Your task to perform on an android device: change text size in settings app Image 0: 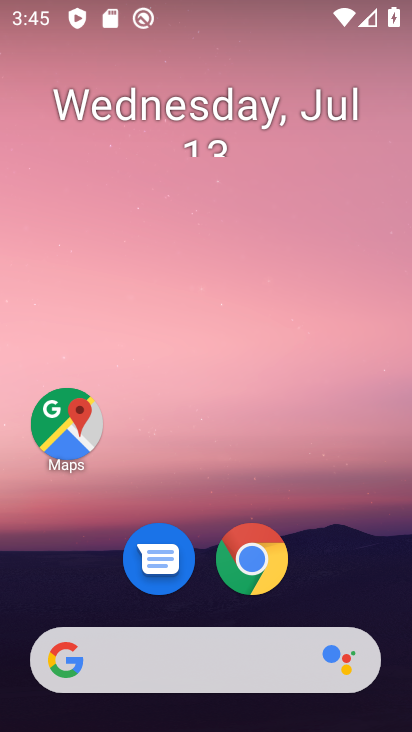
Step 0: drag from (243, 562) to (248, 328)
Your task to perform on an android device: change text size in settings app Image 1: 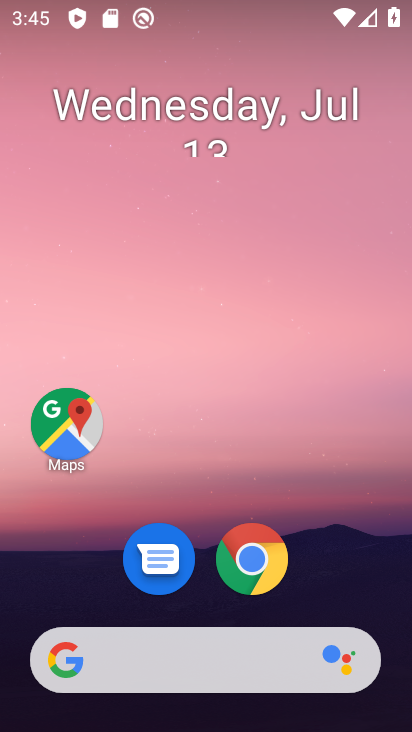
Step 1: drag from (241, 613) to (263, 144)
Your task to perform on an android device: change text size in settings app Image 2: 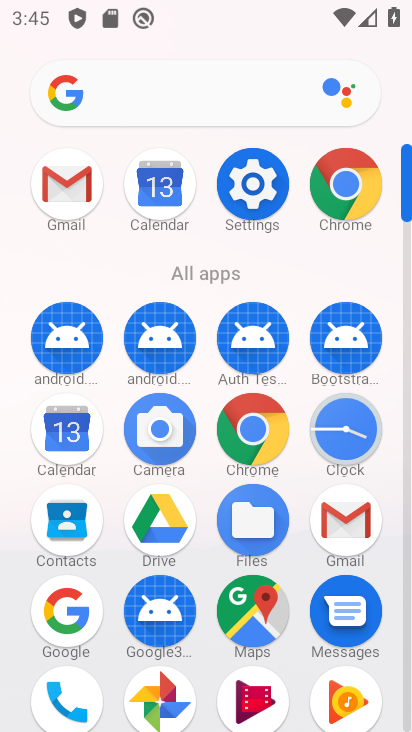
Step 2: click (251, 191)
Your task to perform on an android device: change text size in settings app Image 3: 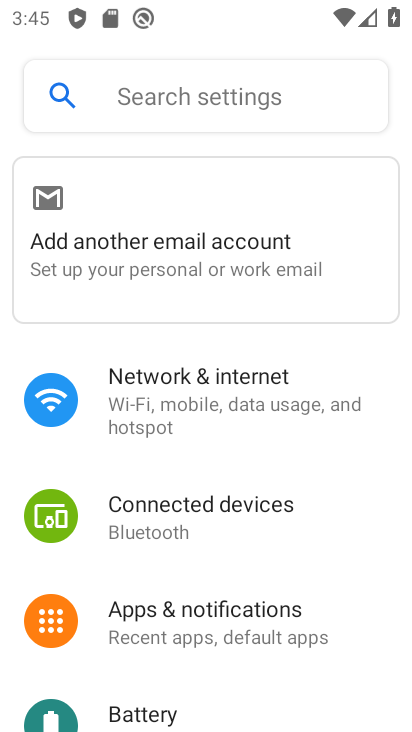
Step 3: drag from (195, 679) to (248, 297)
Your task to perform on an android device: change text size in settings app Image 4: 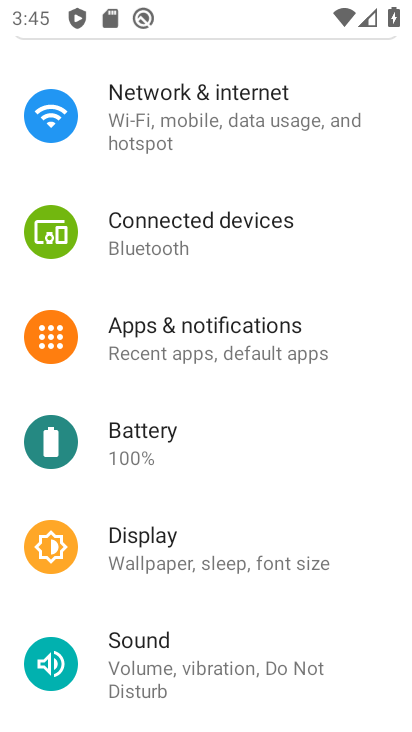
Step 4: drag from (165, 701) to (231, 328)
Your task to perform on an android device: change text size in settings app Image 5: 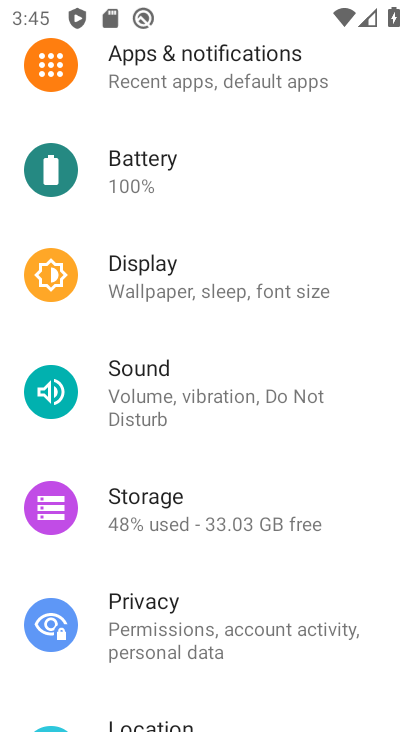
Step 5: drag from (156, 598) to (201, 296)
Your task to perform on an android device: change text size in settings app Image 6: 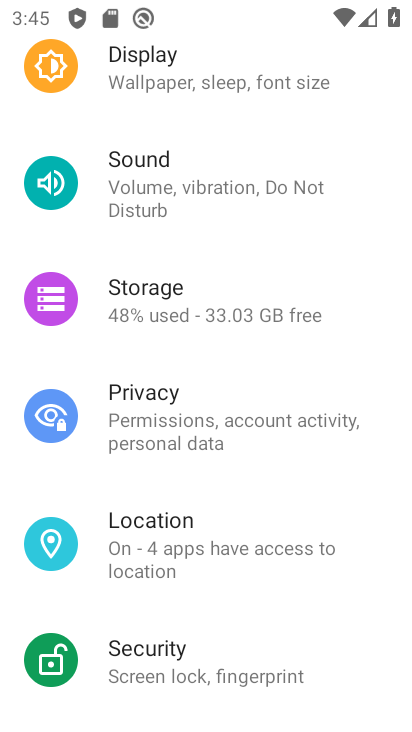
Step 6: drag from (170, 654) to (189, 299)
Your task to perform on an android device: change text size in settings app Image 7: 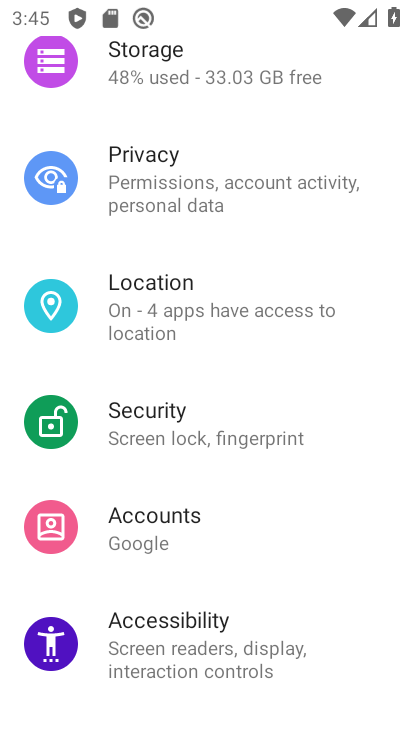
Step 7: click (194, 635)
Your task to perform on an android device: change text size in settings app Image 8: 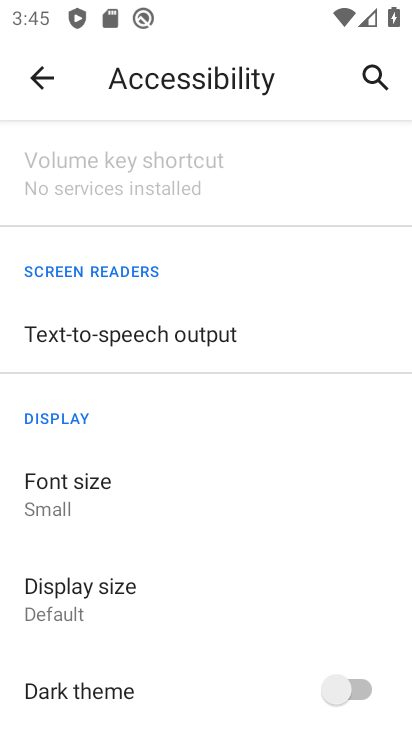
Step 8: click (70, 504)
Your task to perform on an android device: change text size in settings app Image 9: 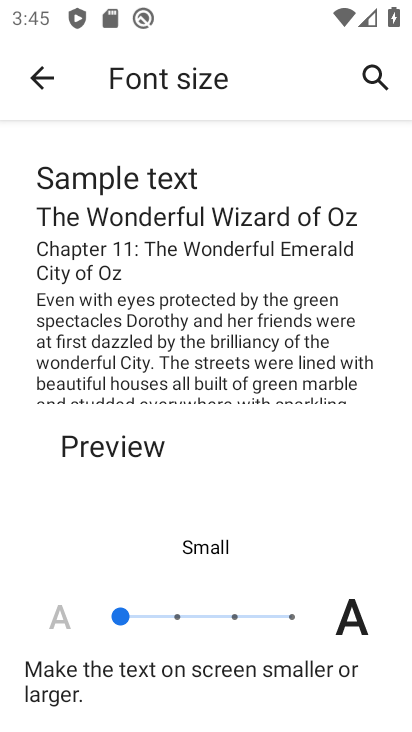
Step 9: click (239, 618)
Your task to perform on an android device: change text size in settings app Image 10: 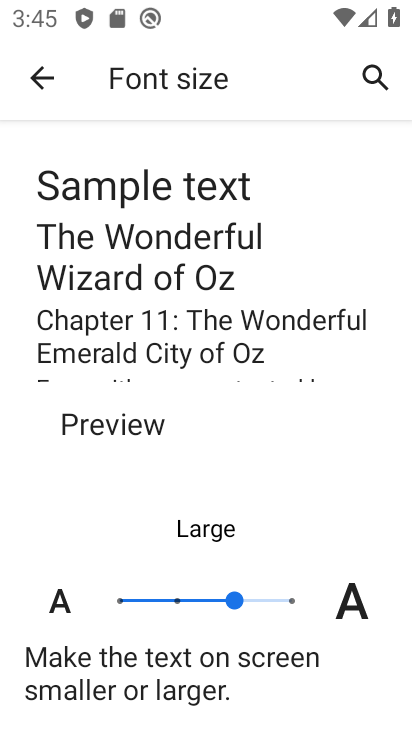
Step 10: task complete